Your task to perform on an android device: change the clock display to analog Image 0: 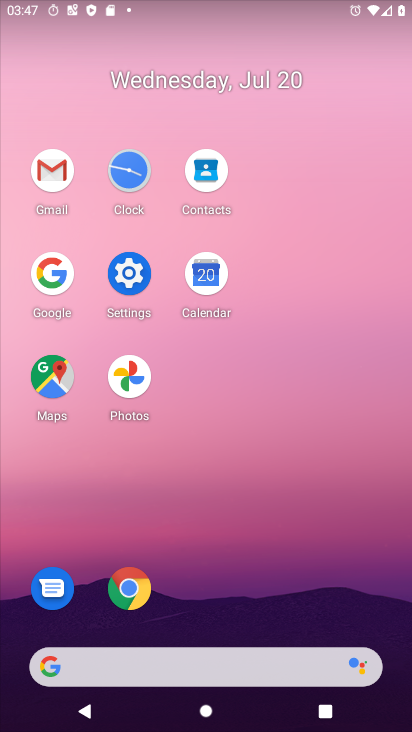
Step 0: click (140, 168)
Your task to perform on an android device: change the clock display to analog Image 1: 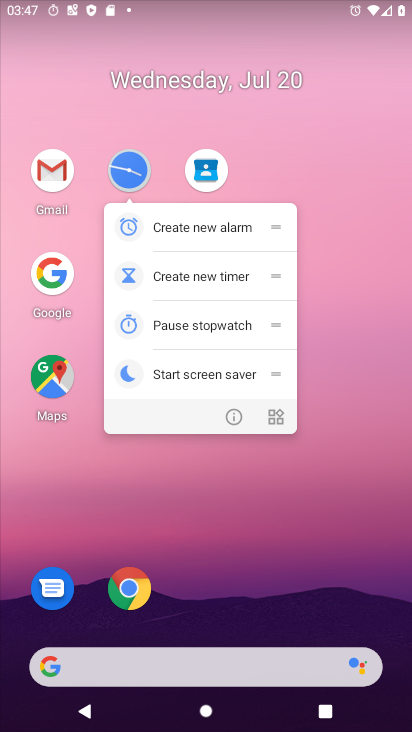
Step 1: click (141, 165)
Your task to perform on an android device: change the clock display to analog Image 2: 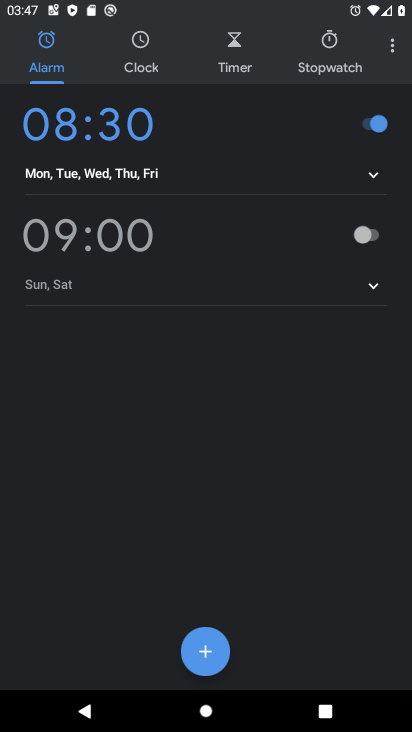
Step 2: click (389, 49)
Your task to perform on an android device: change the clock display to analog Image 3: 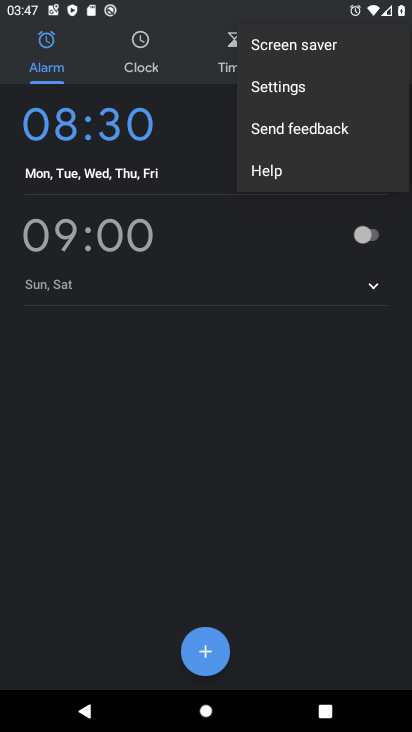
Step 3: click (272, 100)
Your task to perform on an android device: change the clock display to analog Image 4: 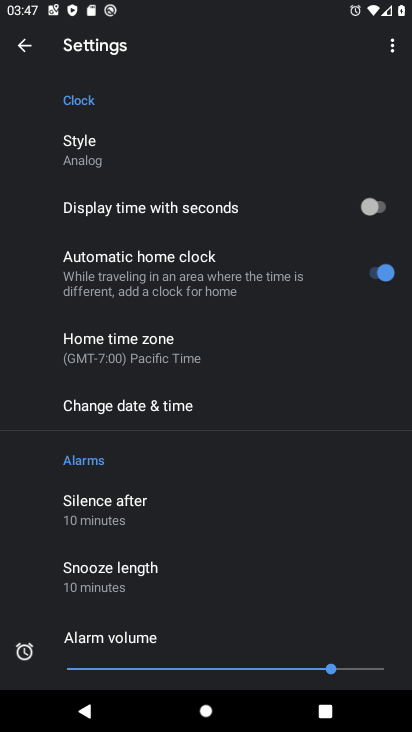
Step 4: task complete